Your task to perform on an android device: change keyboard looks Image 0: 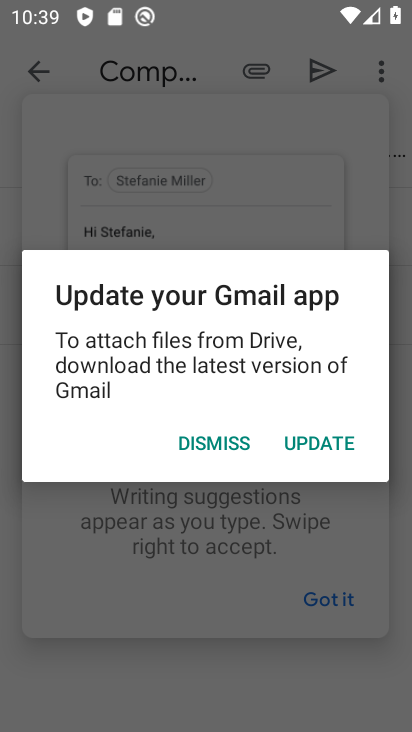
Step 0: press home button
Your task to perform on an android device: change keyboard looks Image 1: 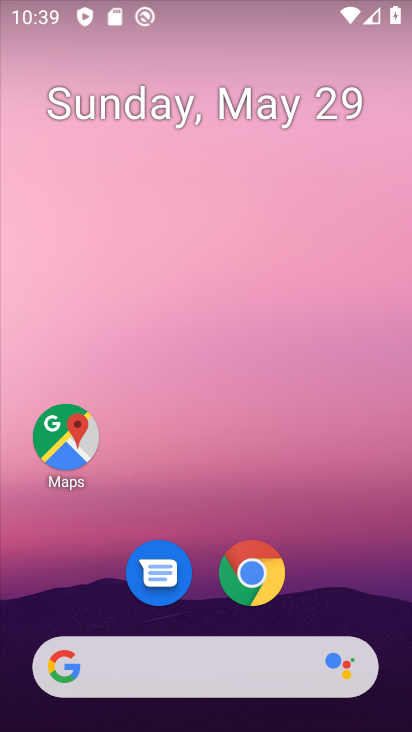
Step 1: drag from (311, 404) to (334, 160)
Your task to perform on an android device: change keyboard looks Image 2: 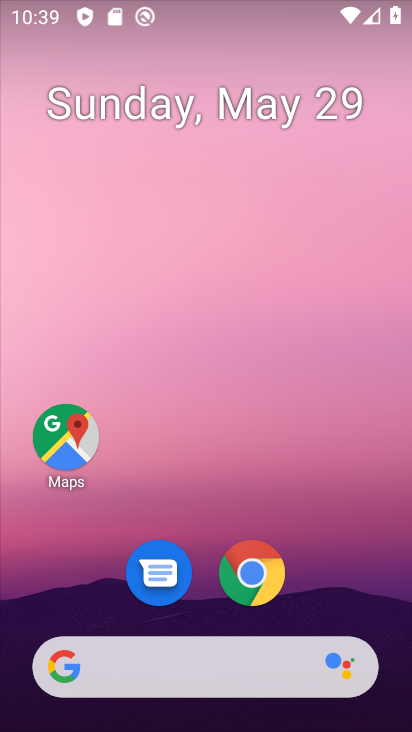
Step 2: drag from (347, 565) to (273, 93)
Your task to perform on an android device: change keyboard looks Image 3: 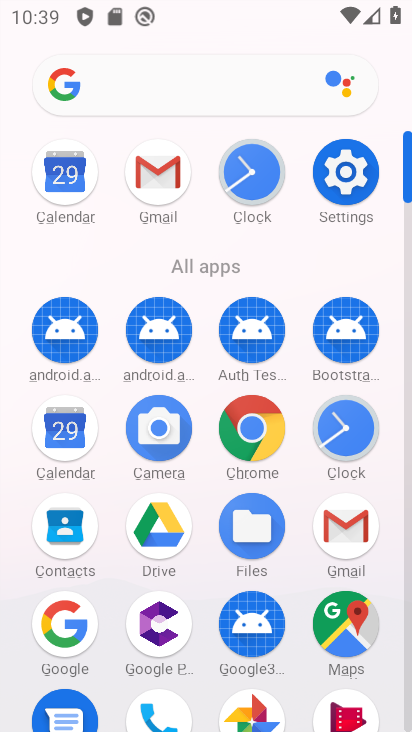
Step 3: click (353, 165)
Your task to perform on an android device: change keyboard looks Image 4: 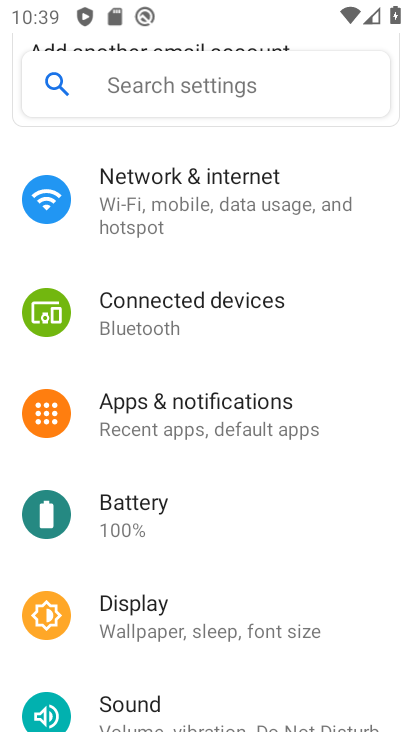
Step 4: drag from (331, 603) to (272, 66)
Your task to perform on an android device: change keyboard looks Image 5: 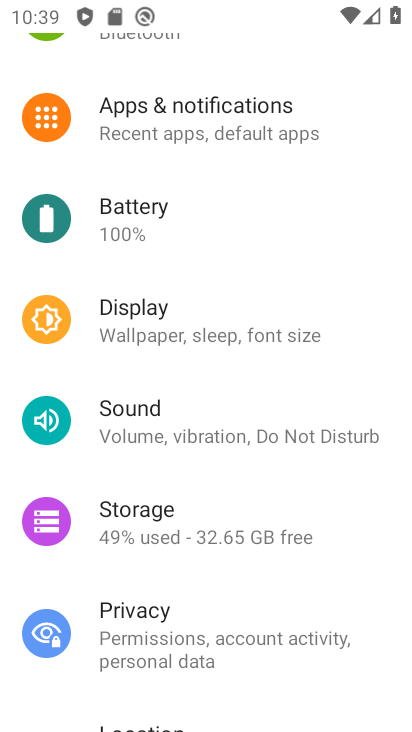
Step 5: drag from (288, 605) to (279, 138)
Your task to perform on an android device: change keyboard looks Image 6: 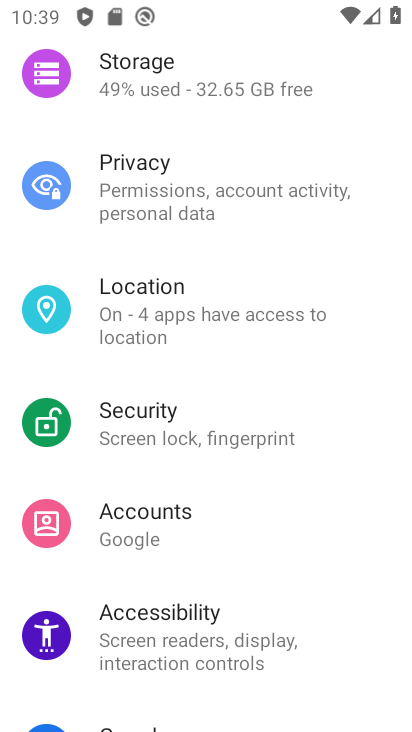
Step 6: drag from (302, 615) to (324, 205)
Your task to perform on an android device: change keyboard looks Image 7: 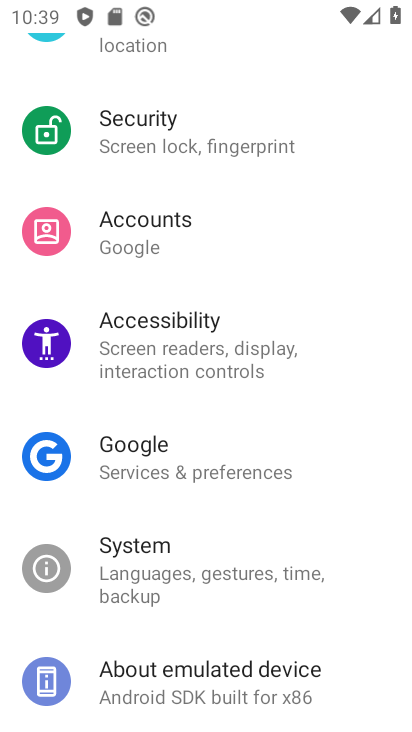
Step 7: click (161, 563)
Your task to perform on an android device: change keyboard looks Image 8: 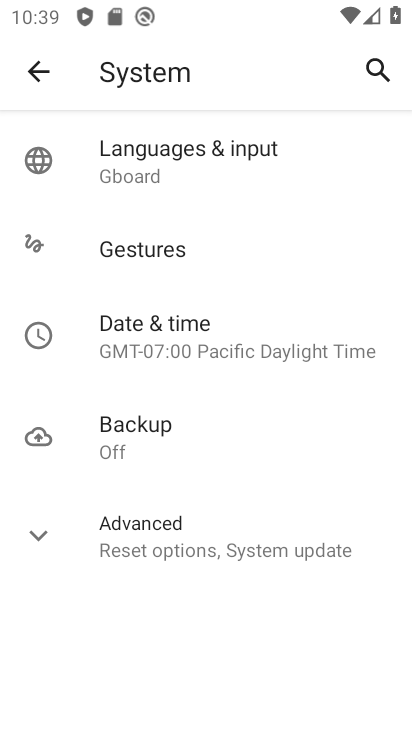
Step 8: click (211, 168)
Your task to perform on an android device: change keyboard looks Image 9: 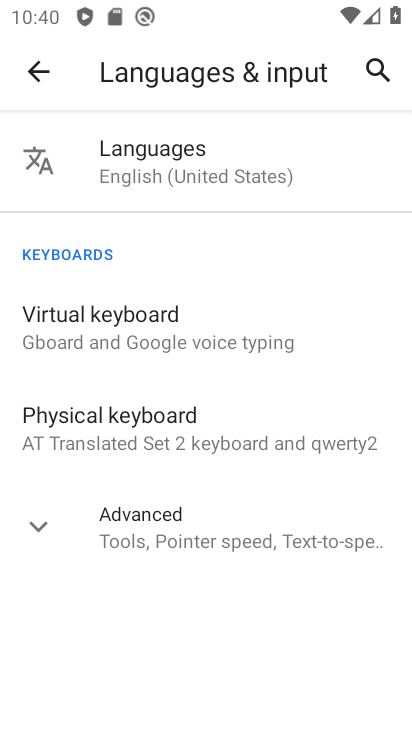
Step 9: click (210, 345)
Your task to perform on an android device: change keyboard looks Image 10: 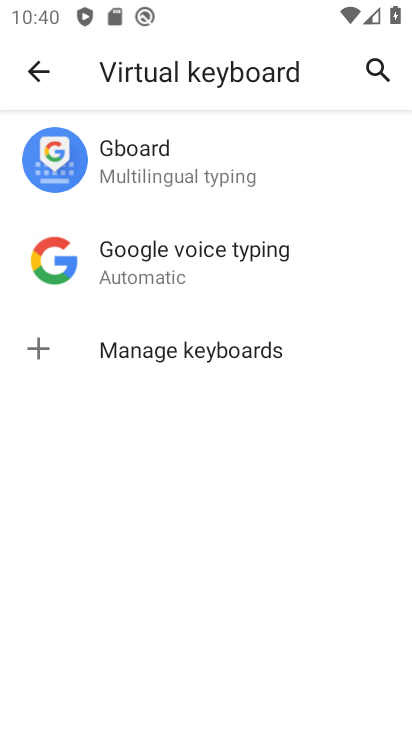
Step 10: click (179, 168)
Your task to perform on an android device: change keyboard looks Image 11: 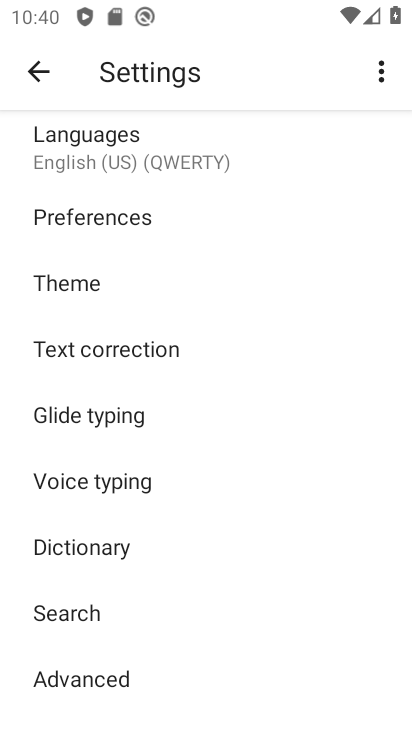
Step 11: click (127, 291)
Your task to perform on an android device: change keyboard looks Image 12: 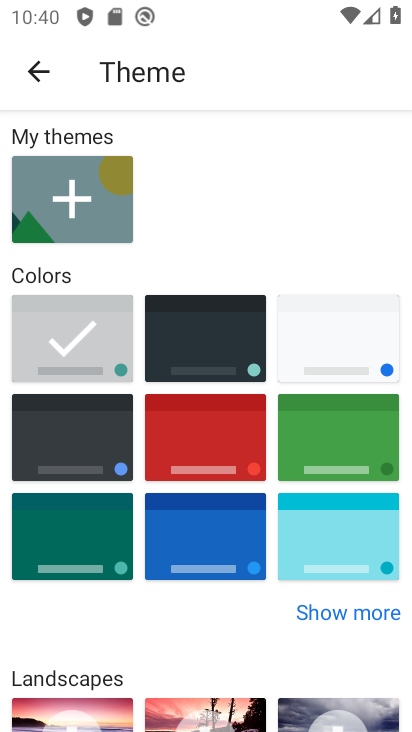
Step 12: click (214, 438)
Your task to perform on an android device: change keyboard looks Image 13: 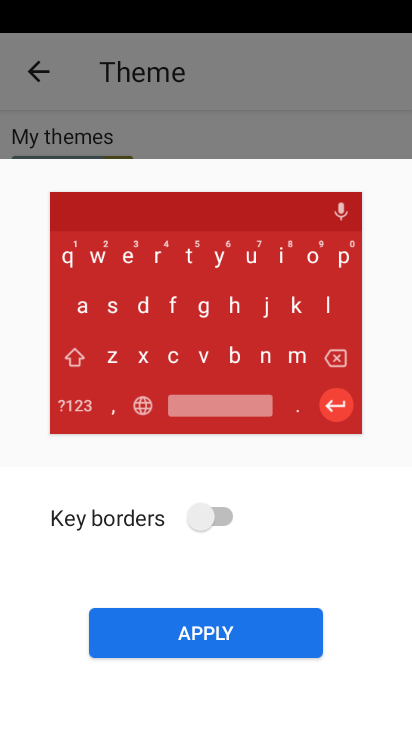
Step 13: click (210, 626)
Your task to perform on an android device: change keyboard looks Image 14: 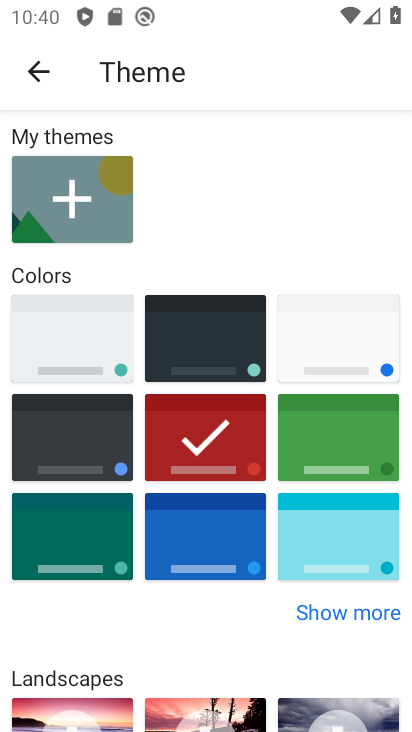
Step 14: task complete